Your task to perform on an android device: Open maps Image 0: 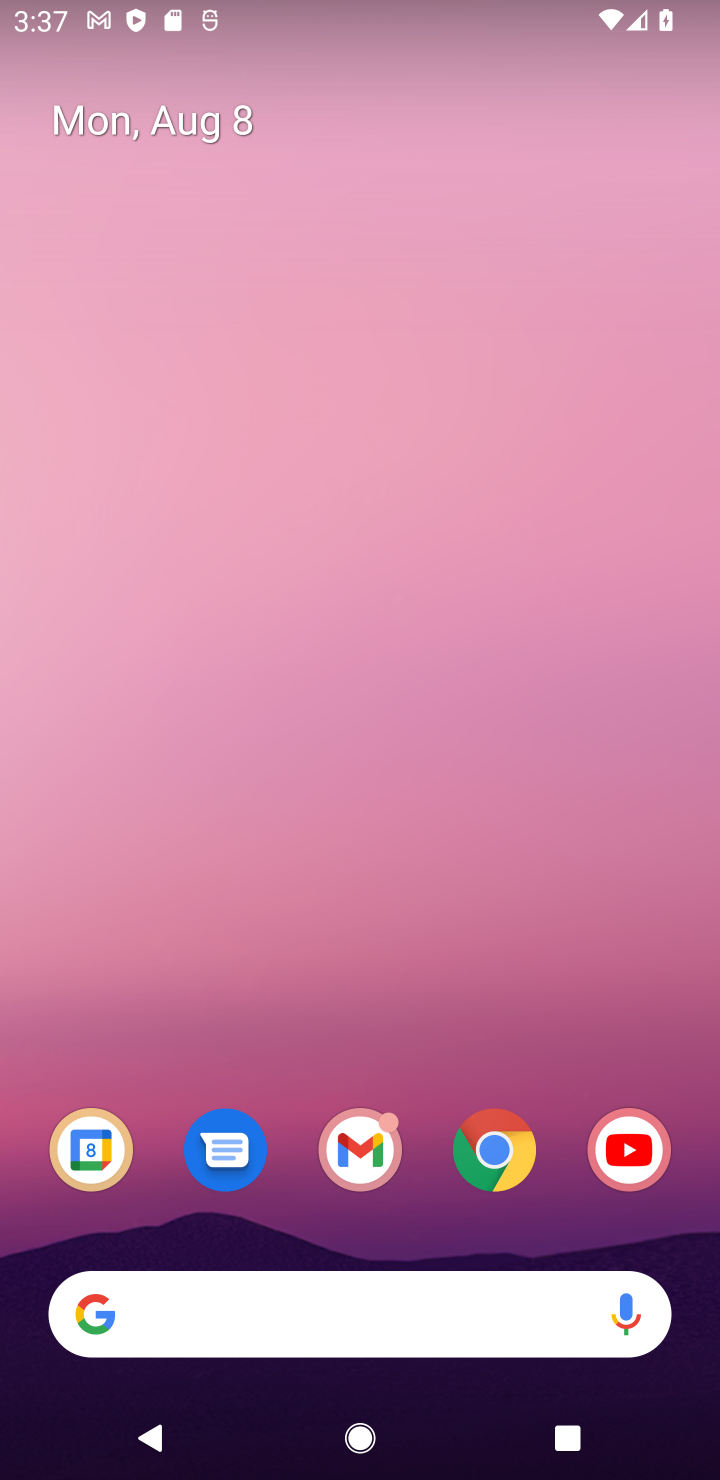
Step 0: drag from (416, 1230) to (497, 451)
Your task to perform on an android device: Open maps Image 1: 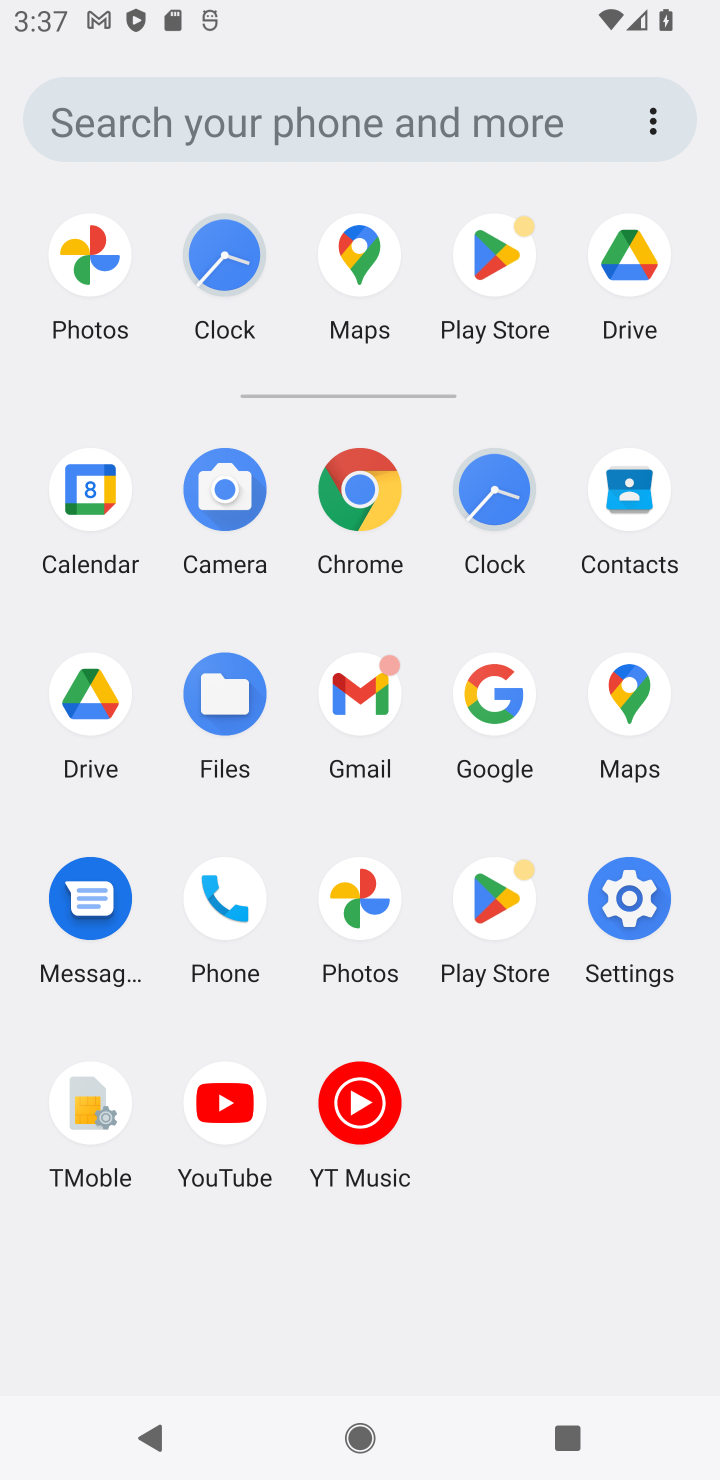
Step 1: click (344, 248)
Your task to perform on an android device: Open maps Image 2: 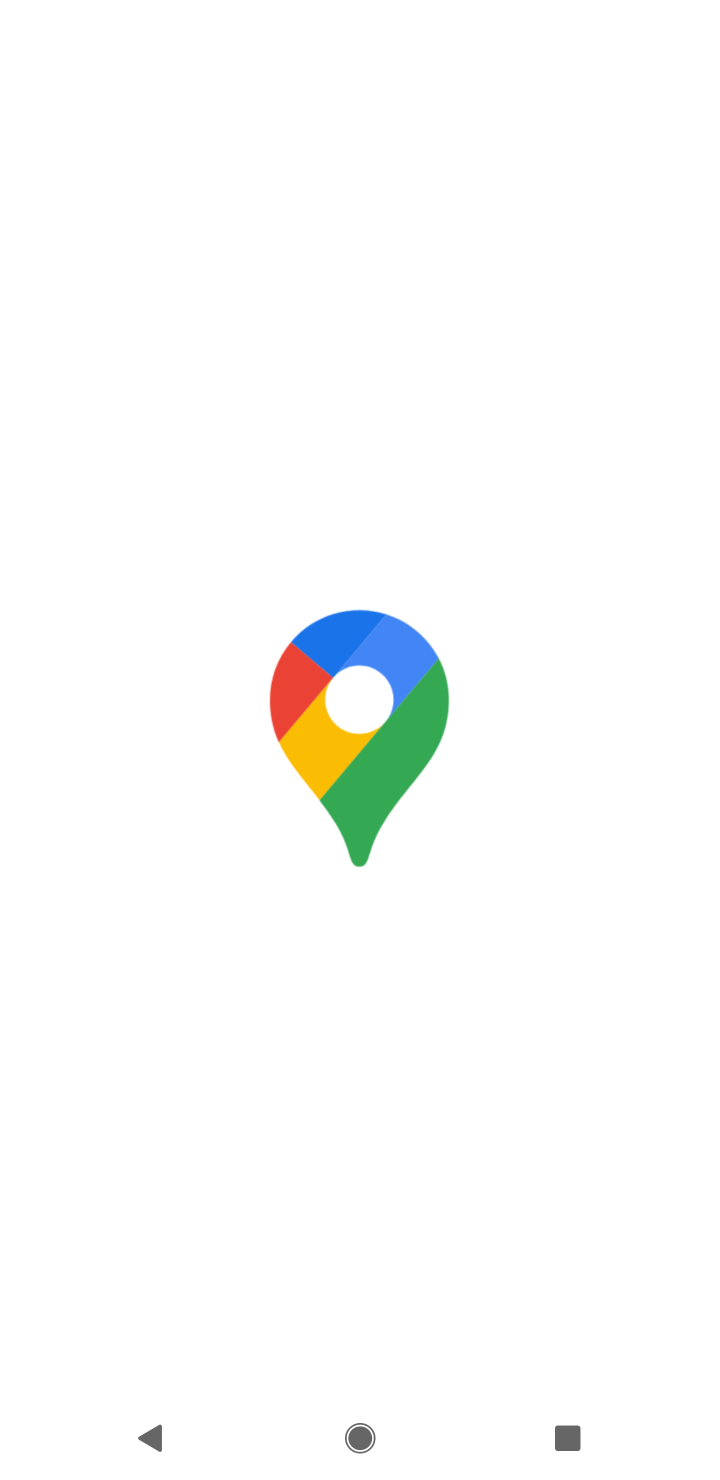
Step 2: task complete